Your task to perform on an android device: turn off notifications in google photos Image 0: 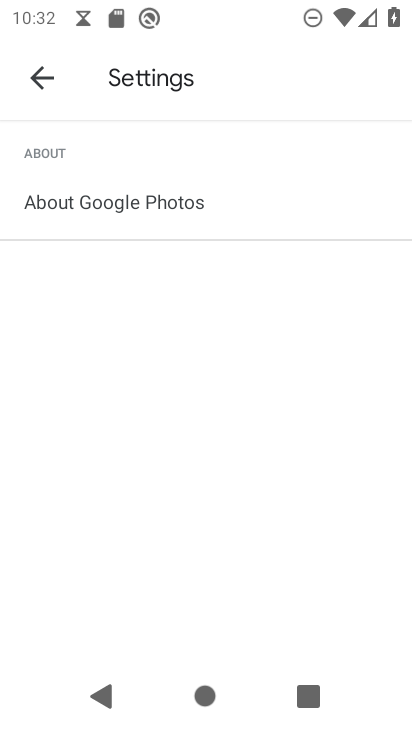
Step 0: press back button
Your task to perform on an android device: turn off notifications in google photos Image 1: 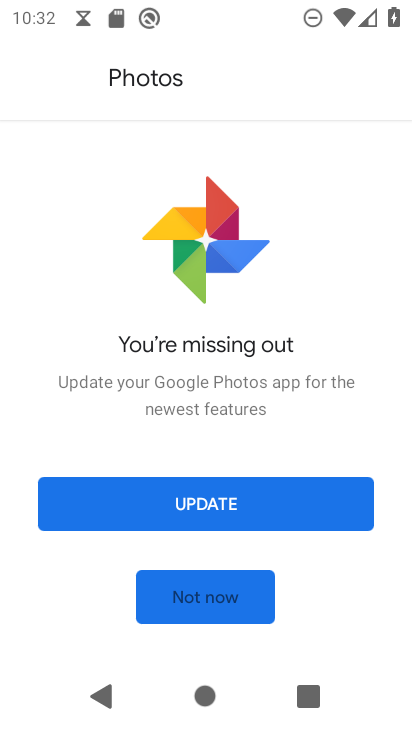
Step 1: press back button
Your task to perform on an android device: turn off notifications in google photos Image 2: 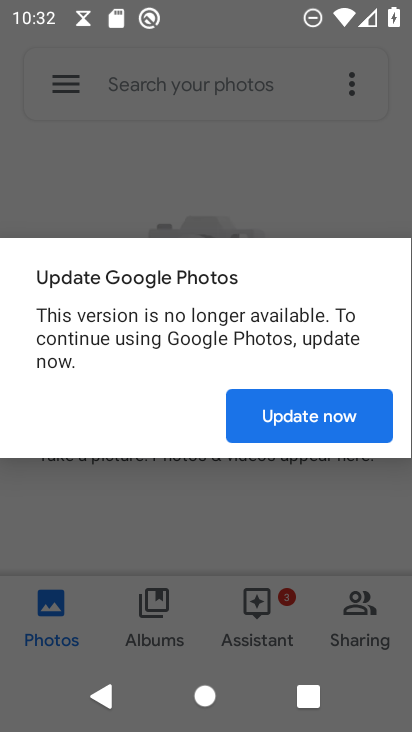
Step 2: press home button
Your task to perform on an android device: turn off notifications in google photos Image 3: 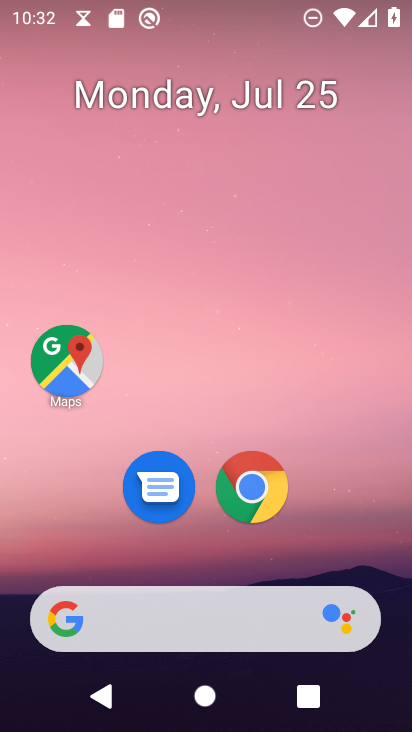
Step 3: drag from (161, 582) to (255, 32)
Your task to perform on an android device: turn off notifications in google photos Image 4: 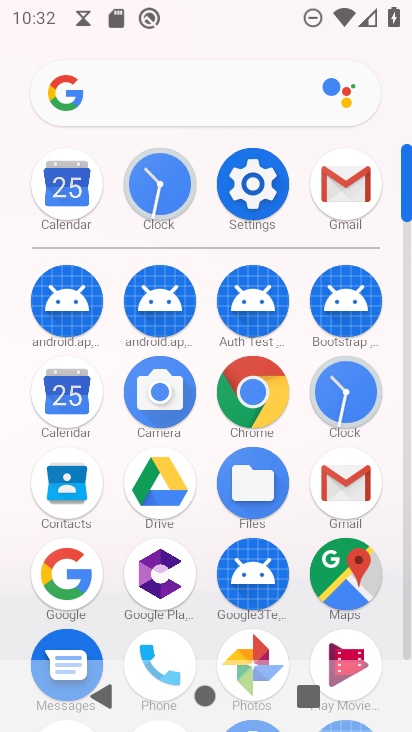
Step 4: click (251, 647)
Your task to perform on an android device: turn off notifications in google photos Image 5: 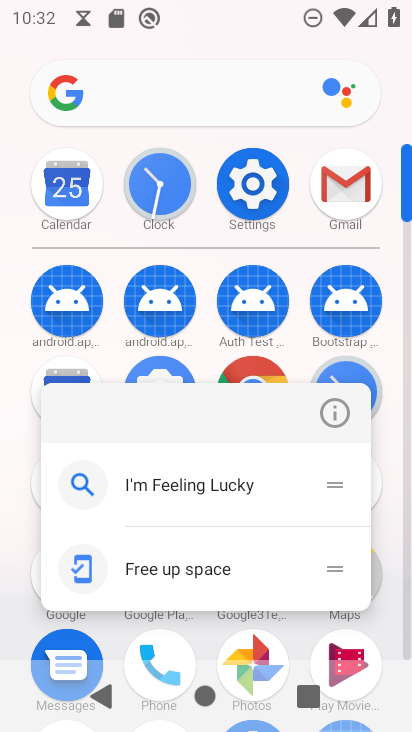
Step 5: click (345, 392)
Your task to perform on an android device: turn off notifications in google photos Image 6: 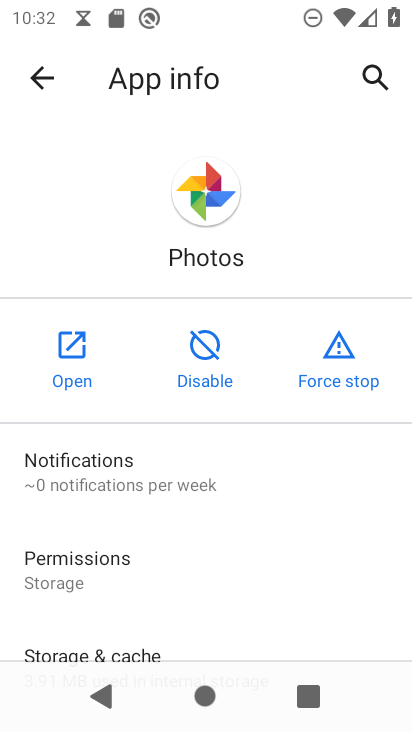
Step 6: click (143, 461)
Your task to perform on an android device: turn off notifications in google photos Image 7: 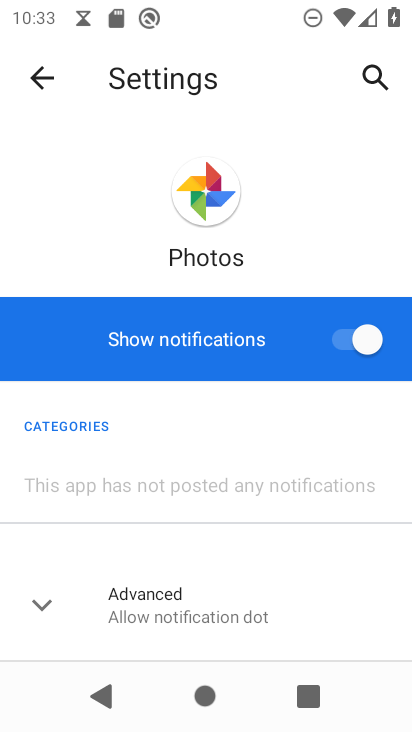
Step 7: click (371, 337)
Your task to perform on an android device: turn off notifications in google photos Image 8: 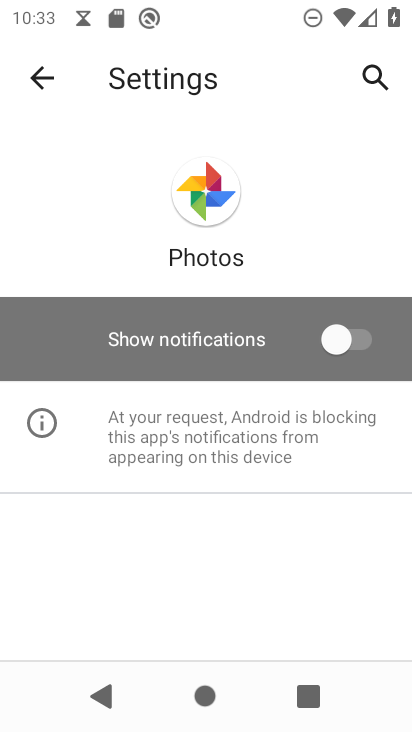
Step 8: task complete